Your task to perform on an android device: Google the capital of Ecuador Image 0: 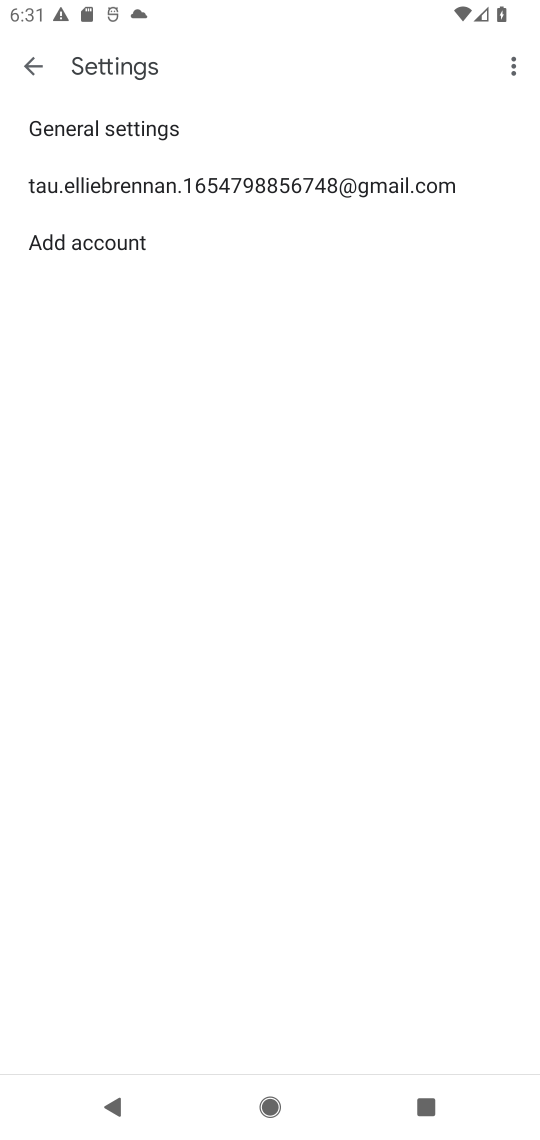
Step 0: press home button
Your task to perform on an android device: Google the capital of Ecuador Image 1: 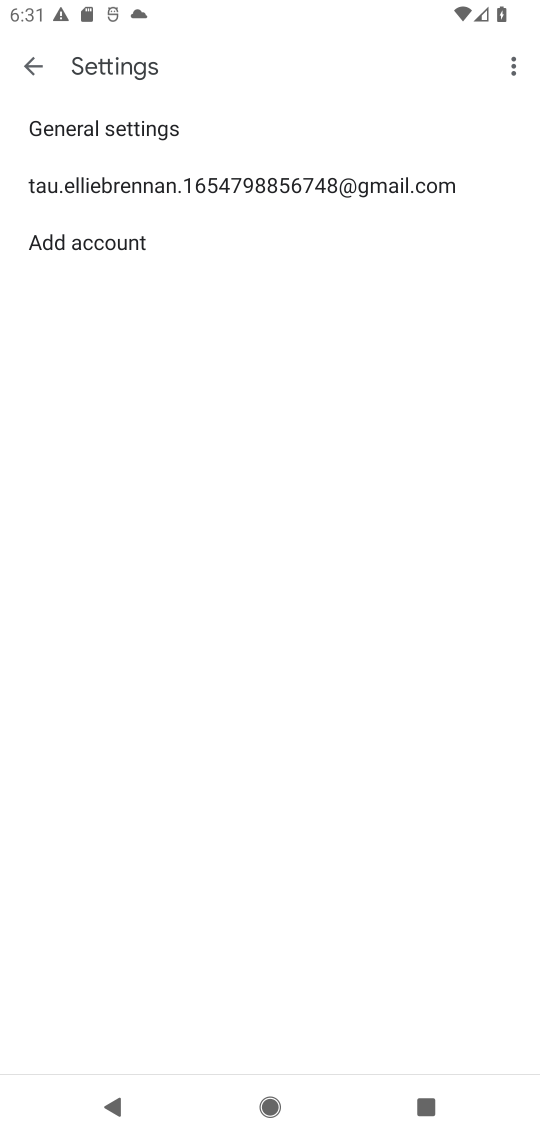
Step 1: press home button
Your task to perform on an android device: Google the capital of Ecuador Image 2: 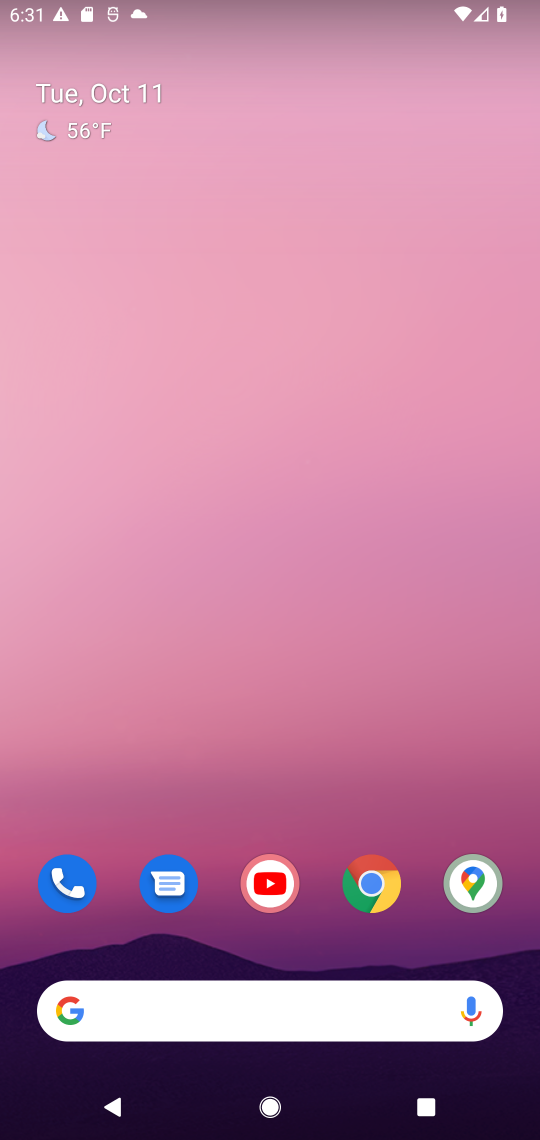
Step 2: drag from (323, 946) to (439, 243)
Your task to perform on an android device: Google the capital of Ecuador Image 3: 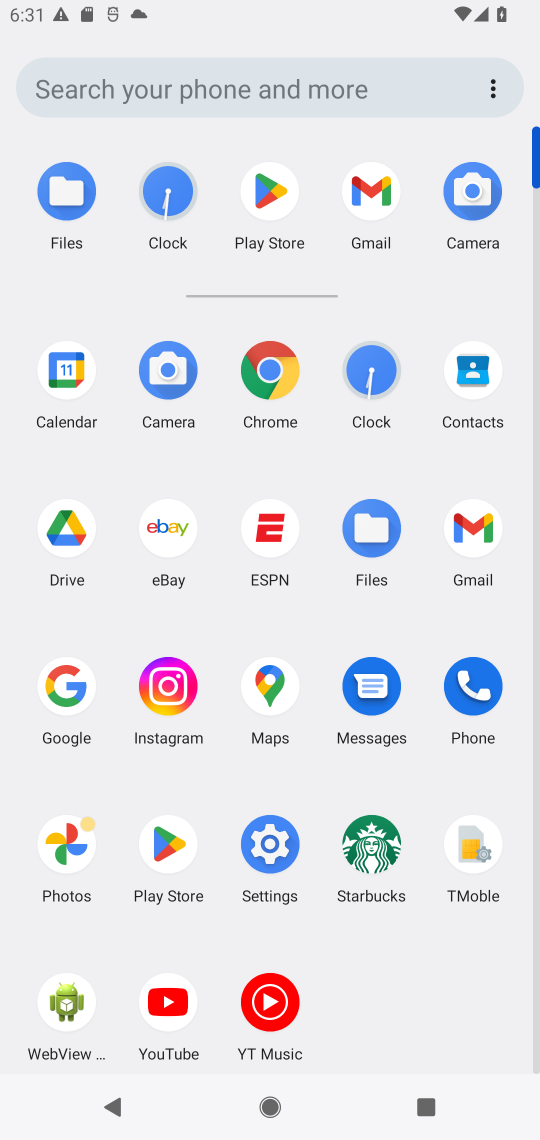
Step 3: click (54, 690)
Your task to perform on an android device: Google the capital of Ecuador Image 4: 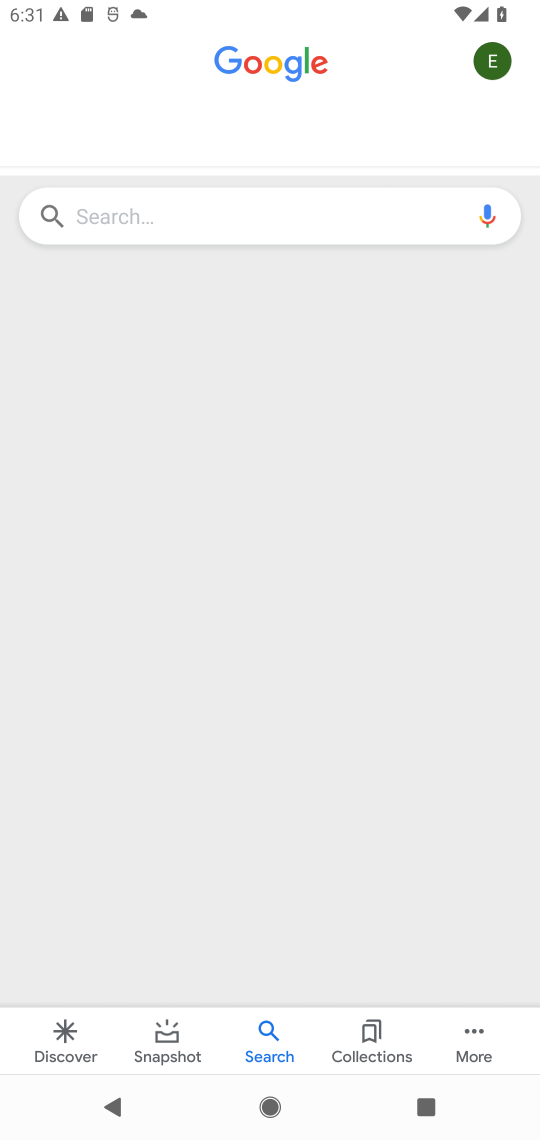
Step 4: click (295, 222)
Your task to perform on an android device: Google the capital of Ecuador Image 5: 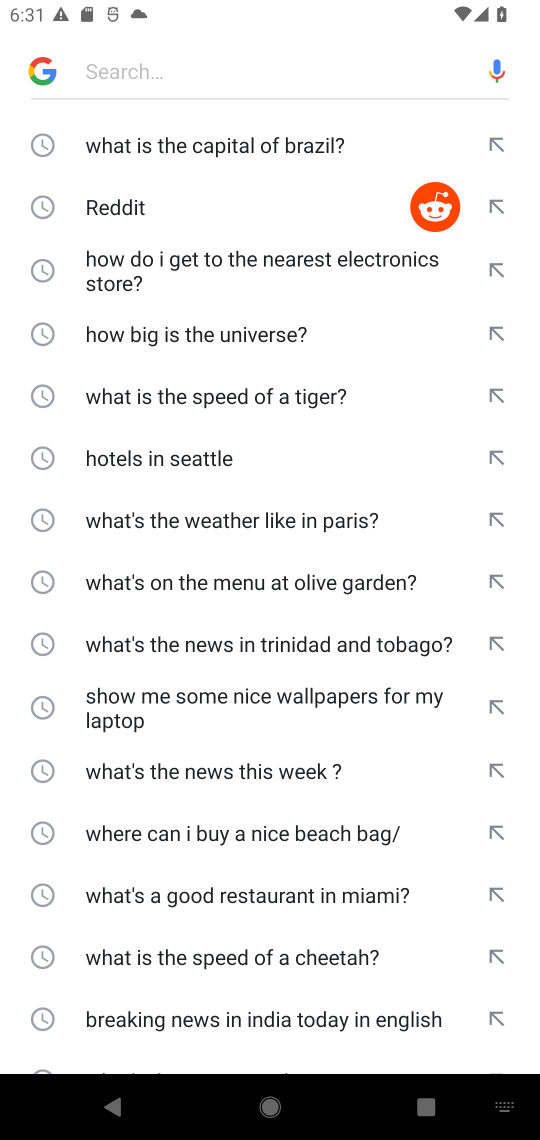
Step 5: type "the capital of Ecuador"
Your task to perform on an android device: Google the capital of Ecuador Image 6: 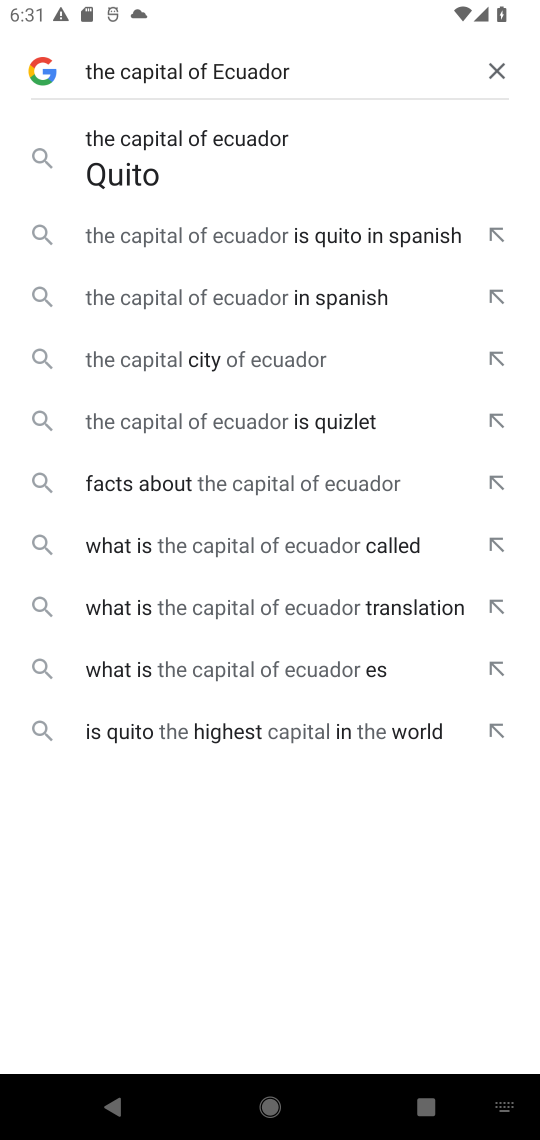
Step 6: press enter
Your task to perform on an android device: Google the capital of Ecuador Image 7: 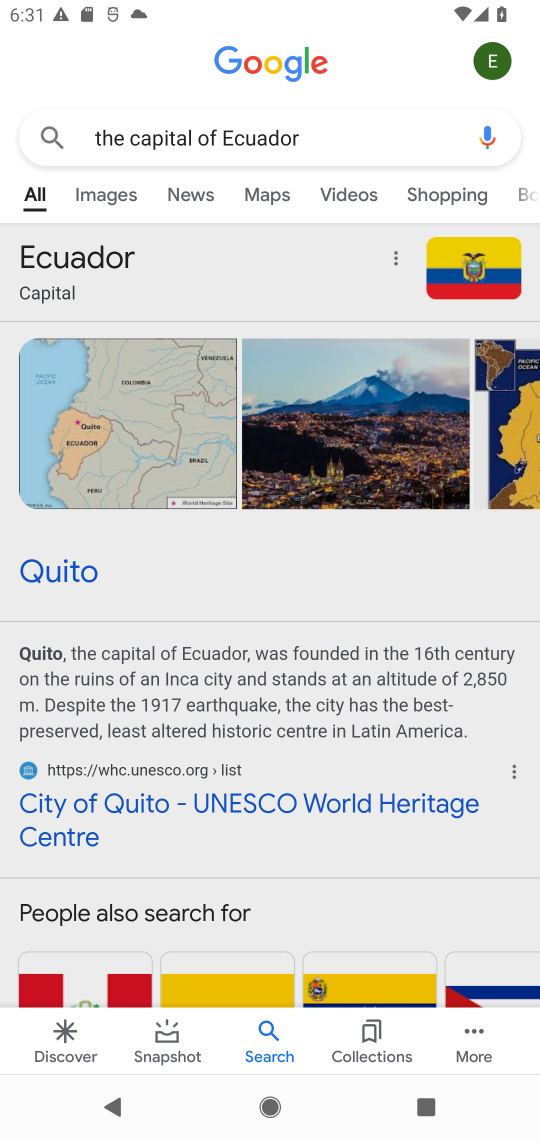
Step 7: task complete